Your task to perform on an android device: set the timer Image 0: 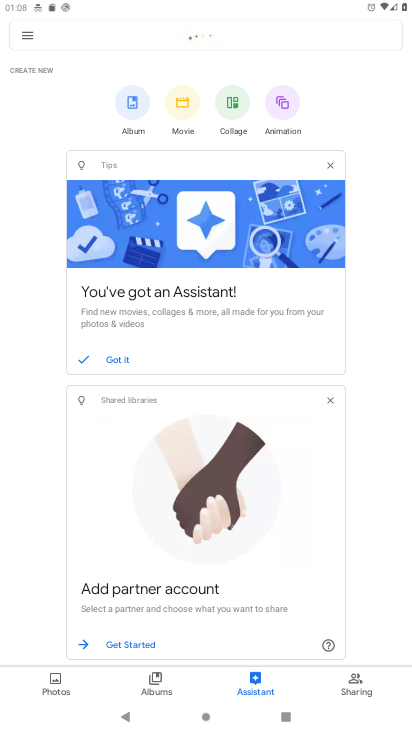
Step 0: press home button
Your task to perform on an android device: set the timer Image 1: 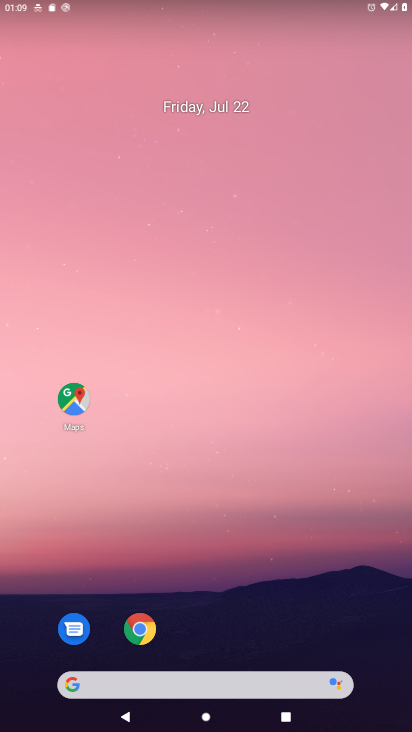
Step 1: drag from (196, 640) to (191, 204)
Your task to perform on an android device: set the timer Image 2: 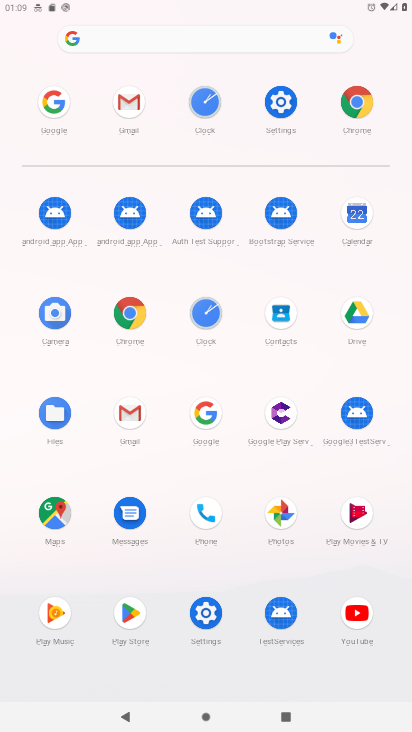
Step 2: click (211, 302)
Your task to perform on an android device: set the timer Image 3: 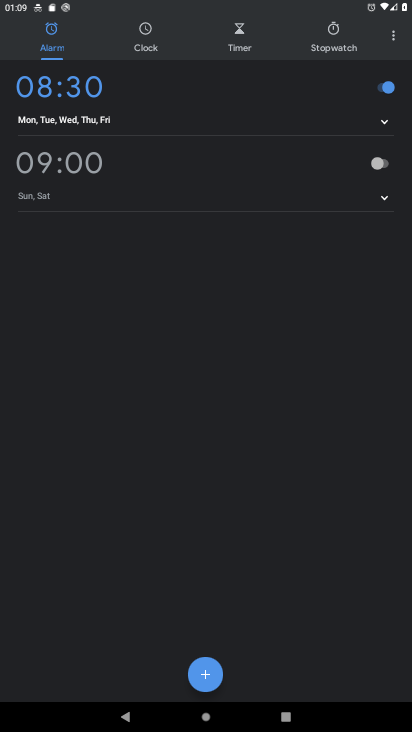
Step 3: click (238, 42)
Your task to perform on an android device: set the timer Image 4: 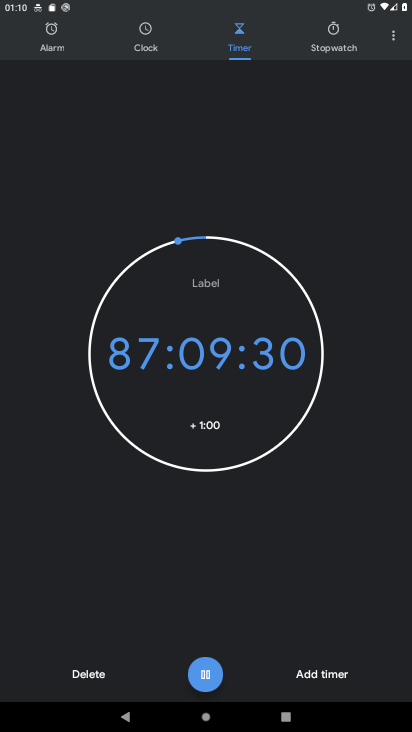
Step 4: task complete